Your task to perform on an android device: check android version Image 0: 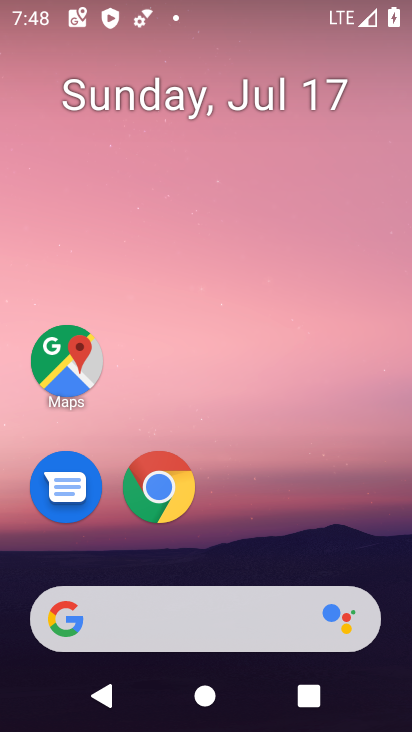
Step 0: drag from (366, 534) to (379, 83)
Your task to perform on an android device: check android version Image 1: 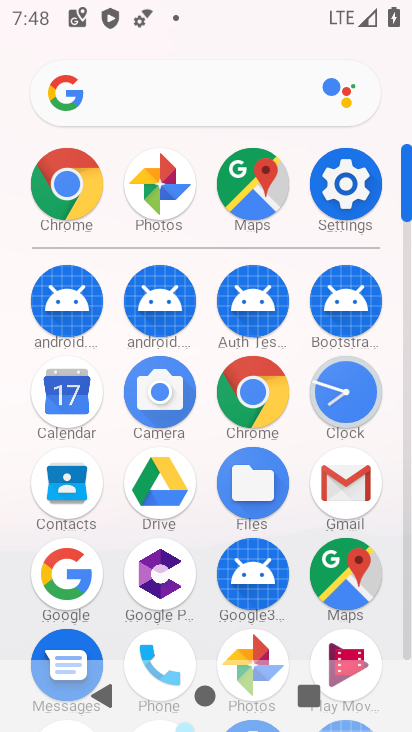
Step 1: click (359, 181)
Your task to perform on an android device: check android version Image 2: 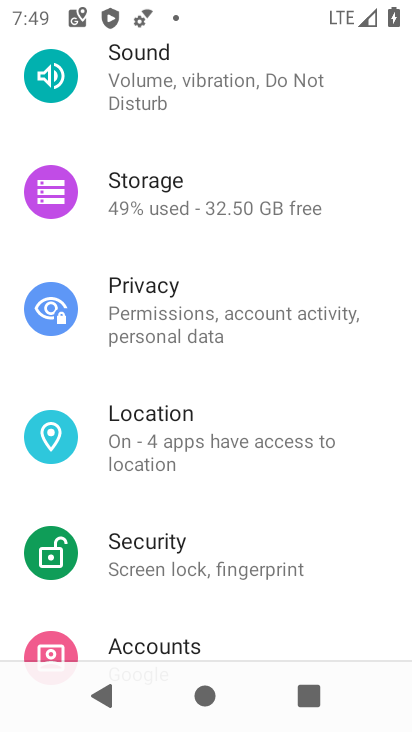
Step 2: drag from (359, 181) to (367, 281)
Your task to perform on an android device: check android version Image 3: 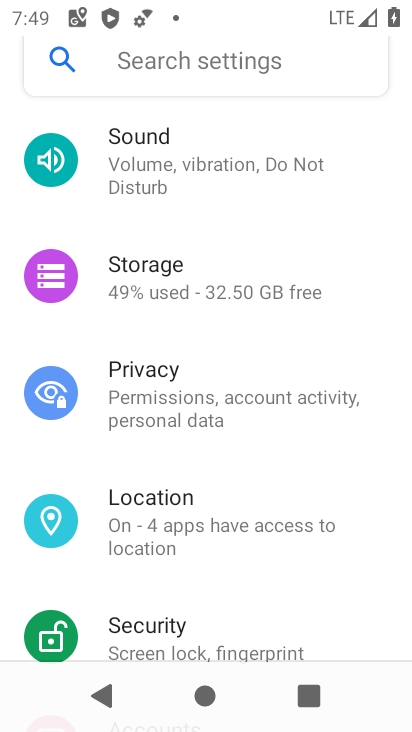
Step 3: drag from (377, 171) to (389, 247)
Your task to perform on an android device: check android version Image 4: 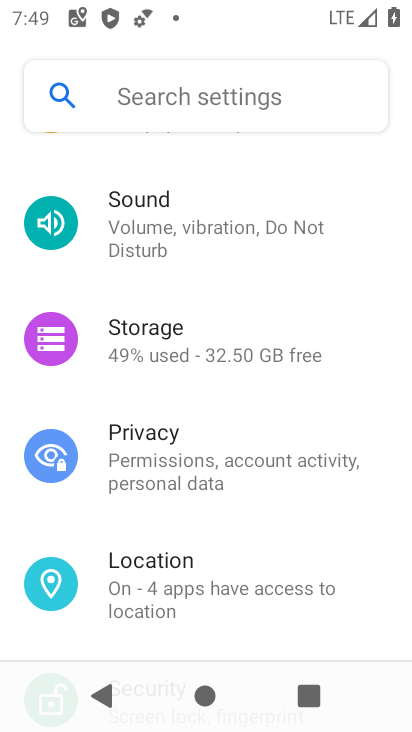
Step 4: drag from (365, 171) to (357, 319)
Your task to perform on an android device: check android version Image 5: 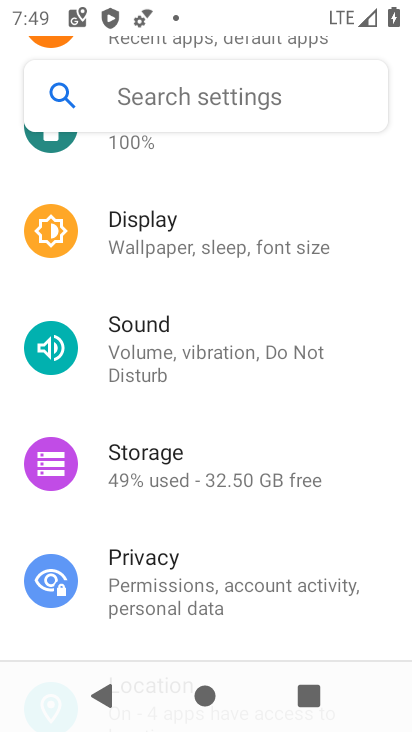
Step 5: drag from (378, 208) to (357, 316)
Your task to perform on an android device: check android version Image 6: 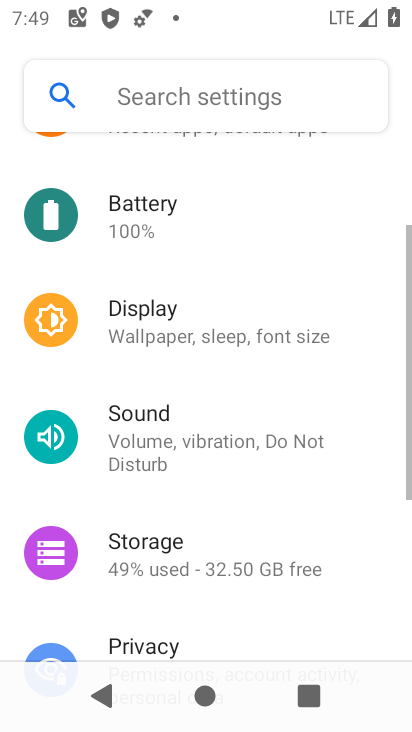
Step 6: drag from (357, 241) to (359, 363)
Your task to perform on an android device: check android version Image 7: 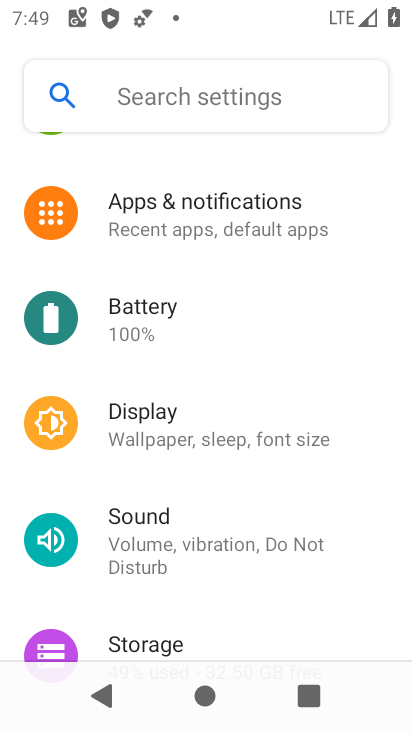
Step 7: drag from (357, 287) to (350, 398)
Your task to perform on an android device: check android version Image 8: 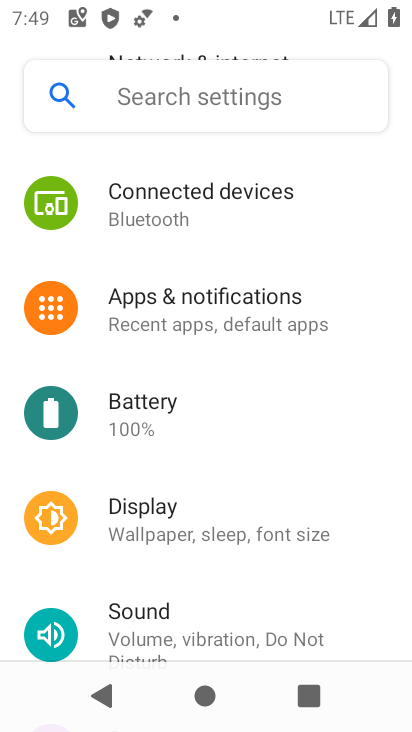
Step 8: drag from (367, 252) to (351, 382)
Your task to perform on an android device: check android version Image 9: 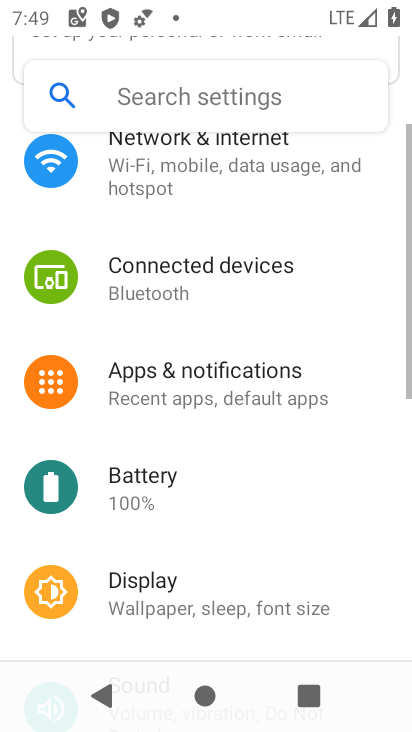
Step 9: drag from (348, 477) to (358, 323)
Your task to perform on an android device: check android version Image 10: 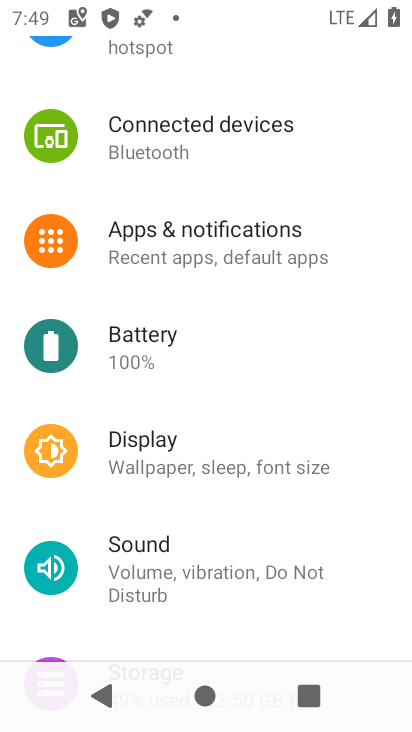
Step 10: drag from (362, 494) to (361, 351)
Your task to perform on an android device: check android version Image 11: 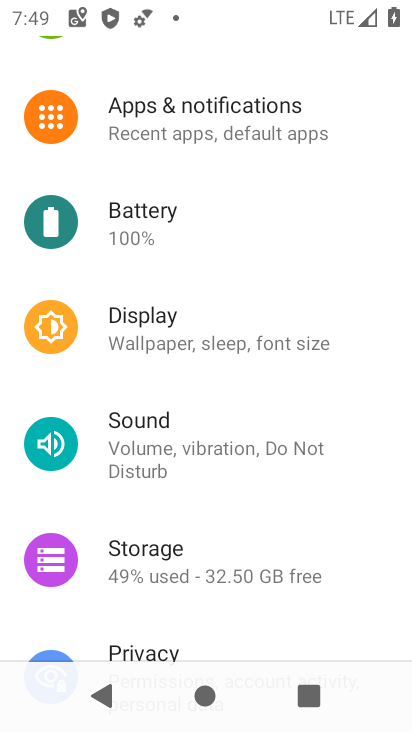
Step 11: drag from (325, 518) to (327, 433)
Your task to perform on an android device: check android version Image 12: 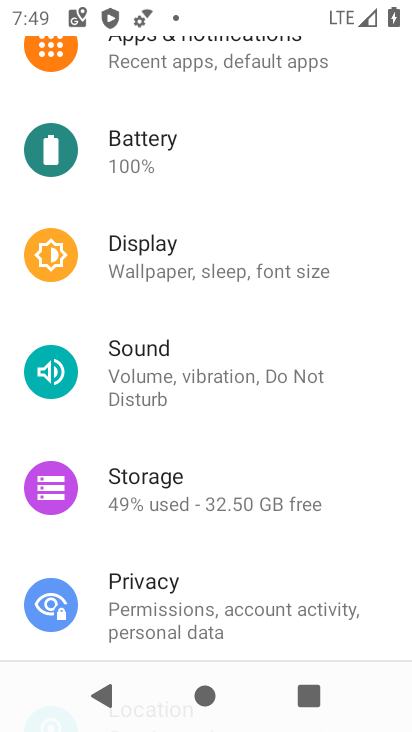
Step 12: drag from (336, 556) to (355, 424)
Your task to perform on an android device: check android version Image 13: 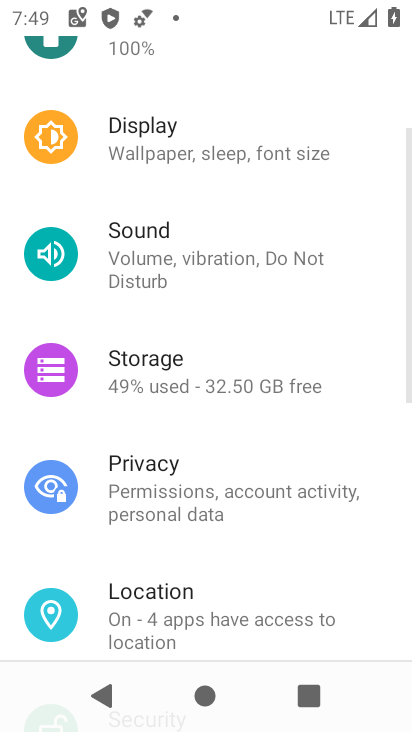
Step 13: drag from (334, 563) to (357, 411)
Your task to perform on an android device: check android version Image 14: 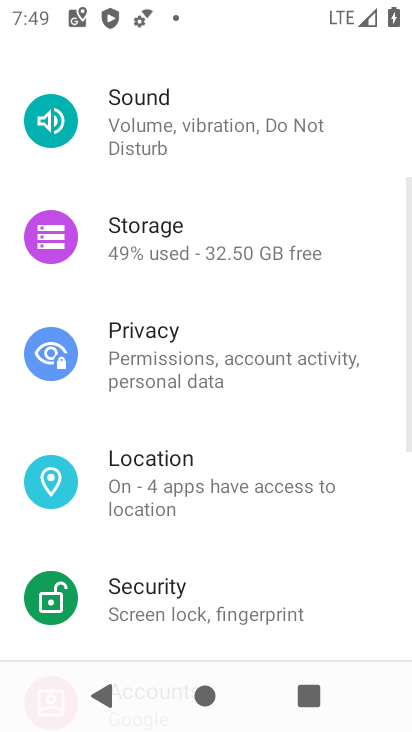
Step 14: drag from (323, 565) to (342, 462)
Your task to perform on an android device: check android version Image 15: 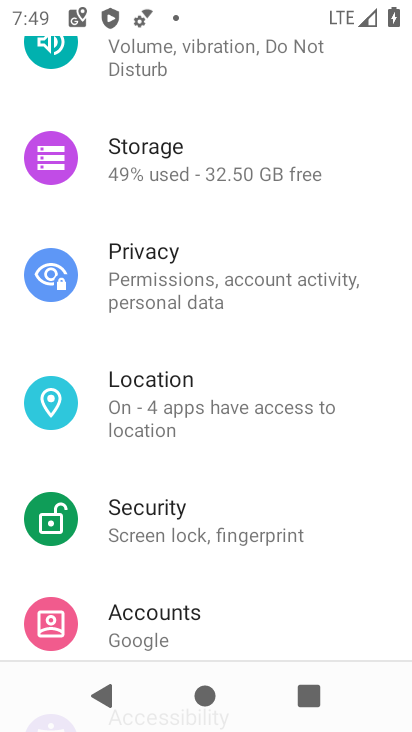
Step 15: drag from (315, 592) to (318, 434)
Your task to perform on an android device: check android version Image 16: 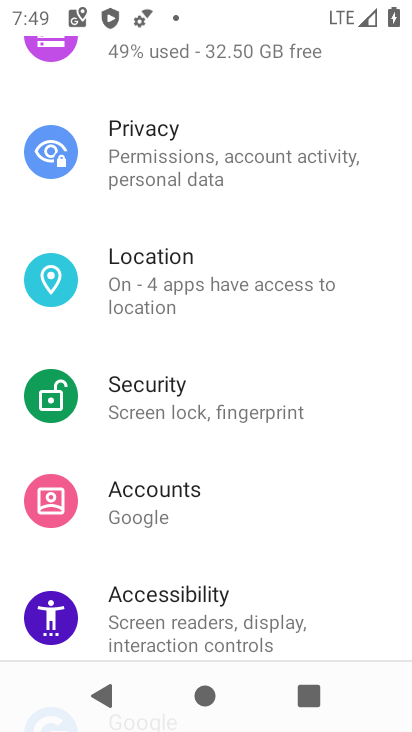
Step 16: drag from (331, 535) to (341, 413)
Your task to perform on an android device: check android version Image 17: 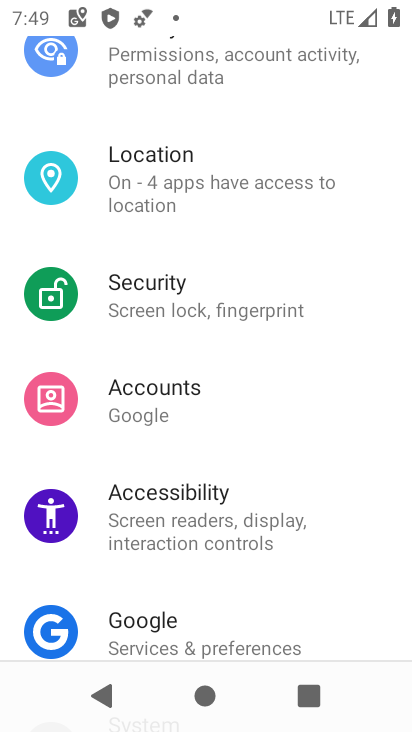
Step 17: drag from (319, 577) to (327, 421)
Your task to perform on an android device: check android version Image 18: 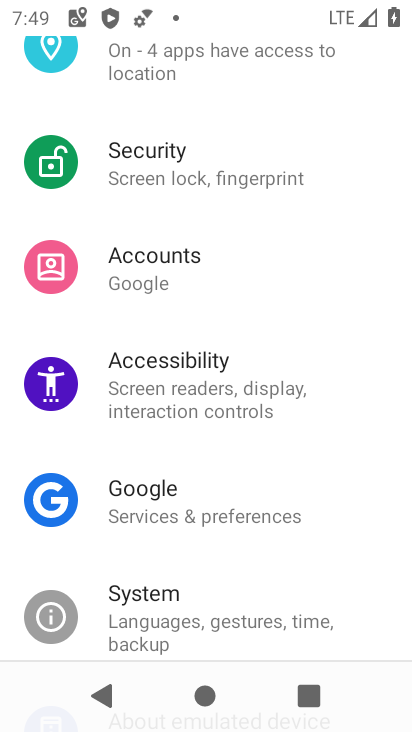
Step 18: drag from (309, 555) to (352, 372)
Your task to perform on an android device: check android version Image 19: 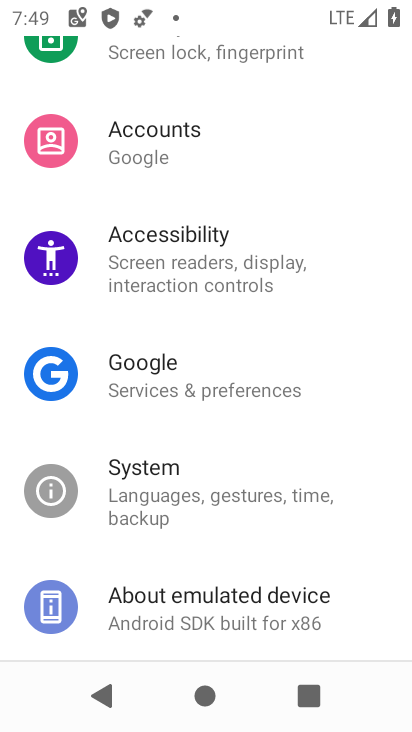
Step 19: click (270, 487)
Your task to perform on an android device: check android version Image 20: 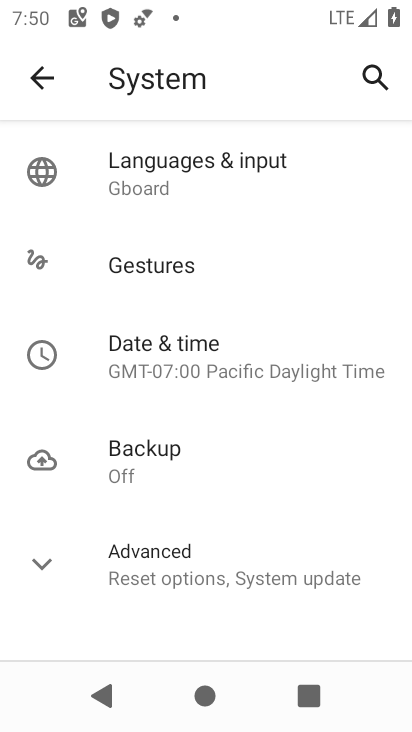
Step 20: click (273, 582)
Your task to perform on an android device: check android version Image 21: 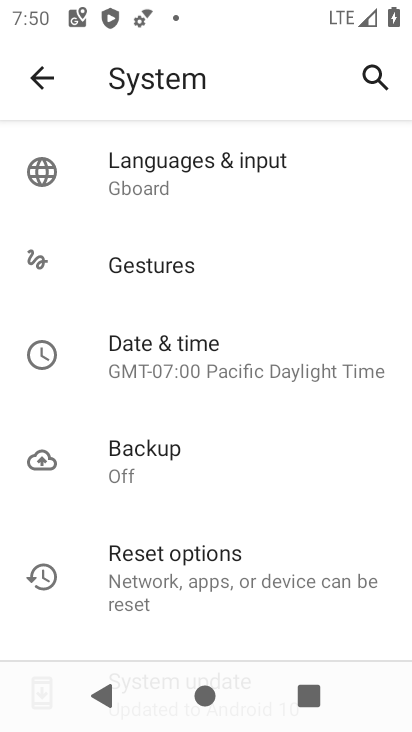
Step 21: drag from (288, 602) to (299, 334)
Your task to perform on an android device: check android version Image 22: 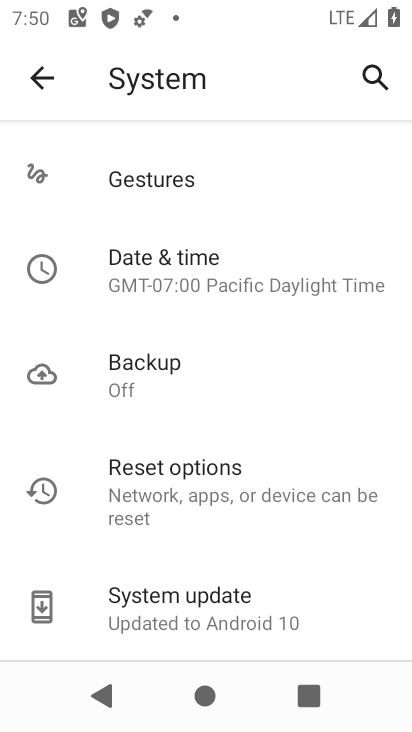
Step 22: click (270, 594)
Your task to perform on an android device: check android version Image 23: 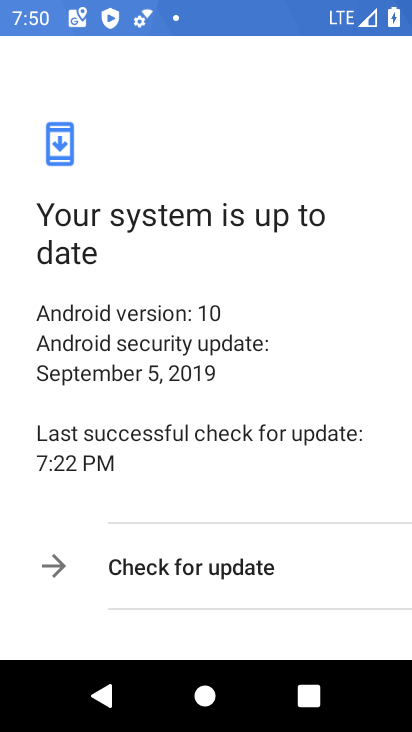
Step 23: task complete